Your task to perform on an android device: open app "Clock" (install if not already installed) Image 0: 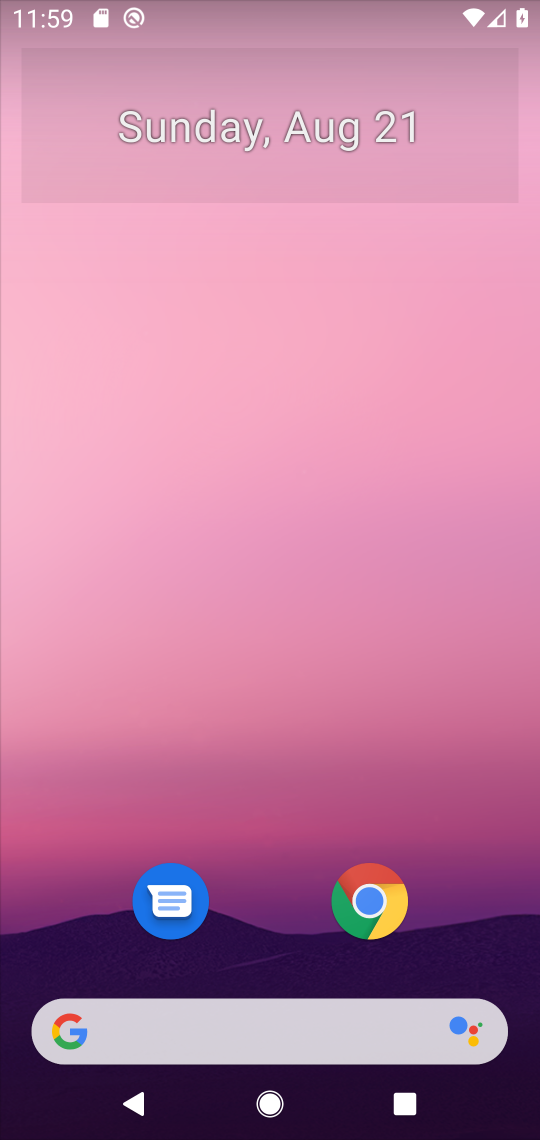
Step 0: drag from (273, 978) to (446, 145)
Your task to perform on an android device: open app "Clock" (install if not already installed) Image 1: 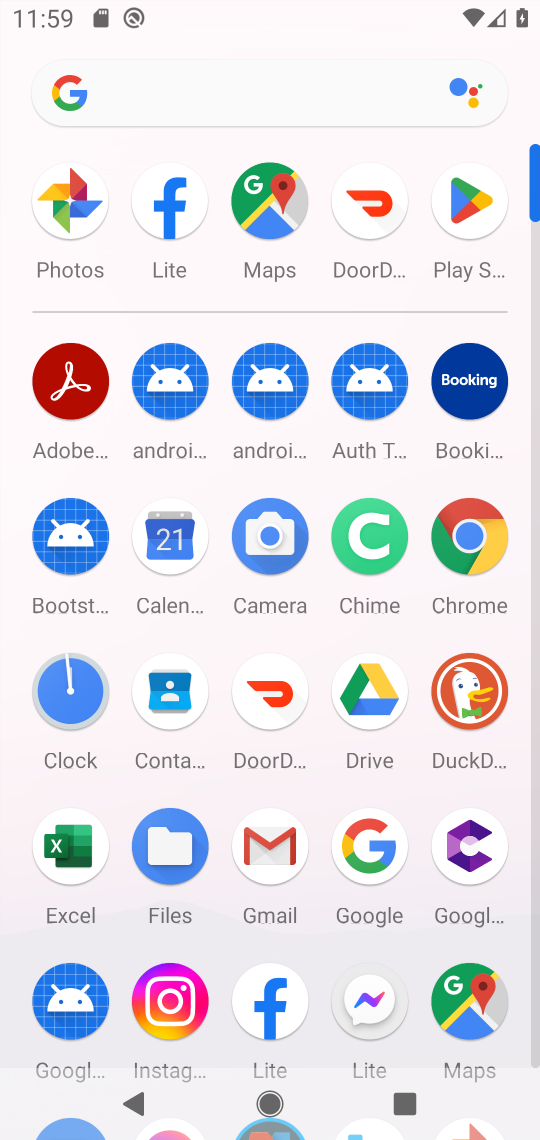
Step 1: click (458, 210)
Your task to perform on an android device: open app "Clock" (install if not already installed) Image 2: 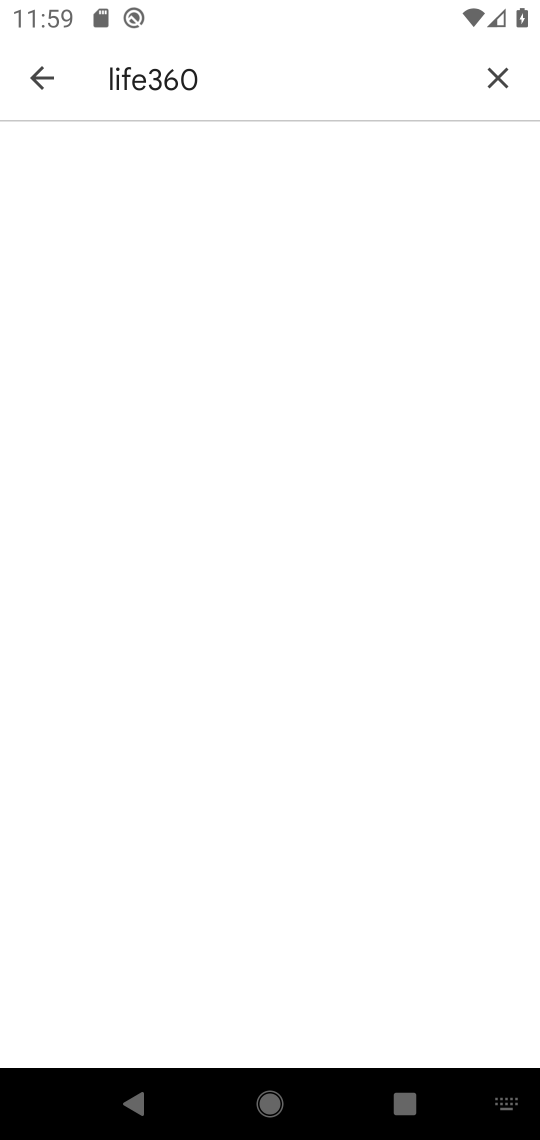
Step 2: click (490, 68)
Your task to perform on an android device: open app "Clock" (install if not already installed) Image 3: 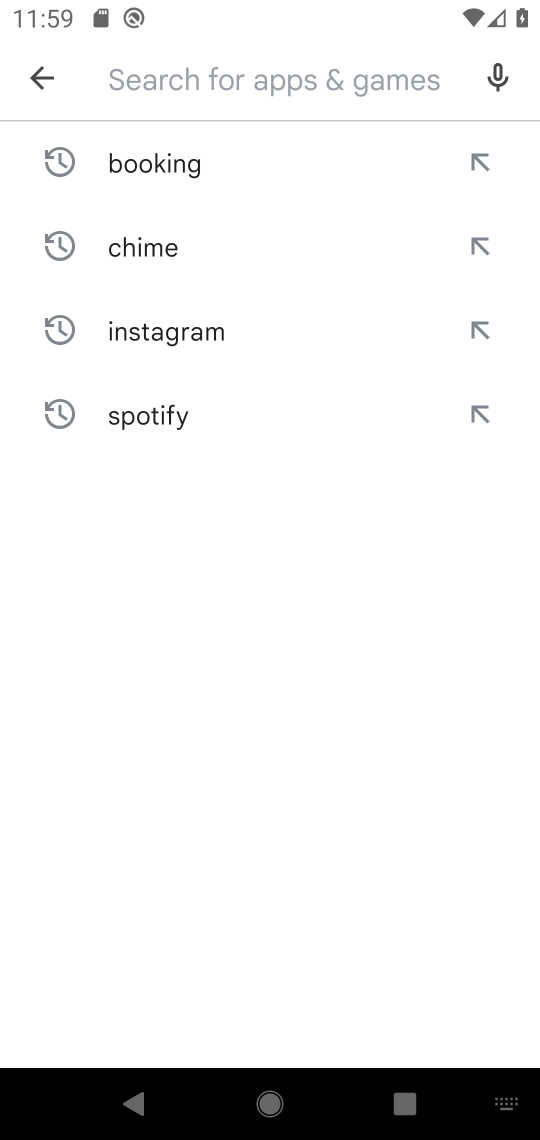
Step 3: type "clock"
Your task to perform on an android device: open app "Clock" (install if not already installed) Image 4: 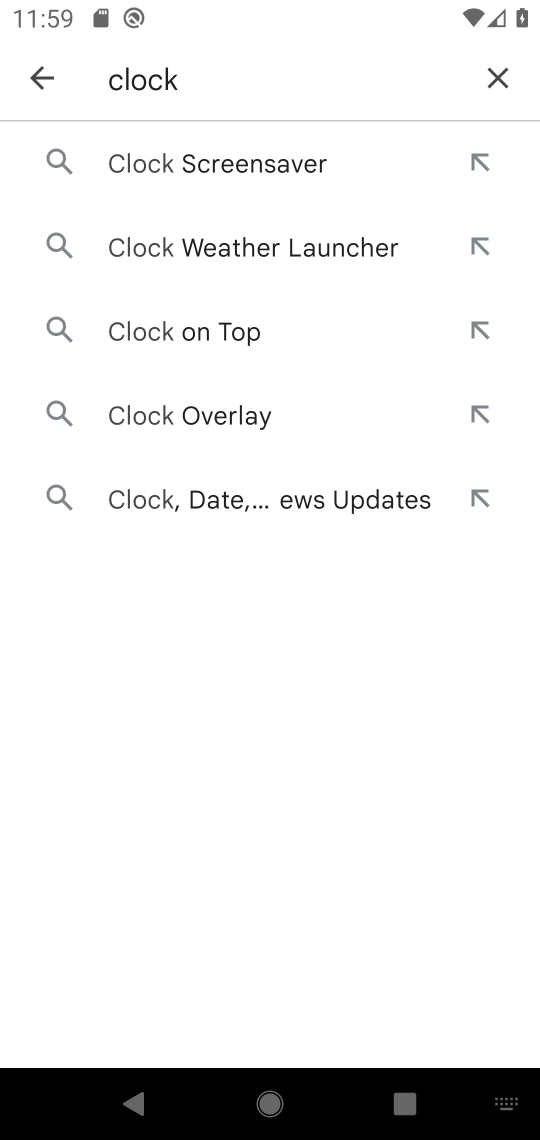
Step 4: click (184, 192)
Your task to perform on an android device: open app "Clock" (install if not already installed) Image 5: 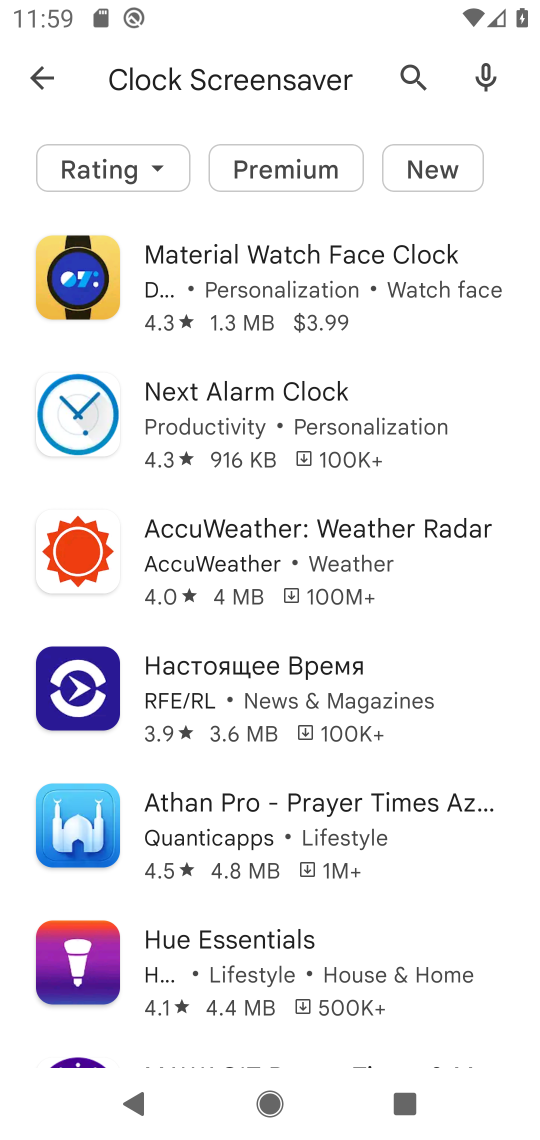
Step 5: task complete